Your task to perform on an android device: toggle notifications settings in the gmail app Image 0: 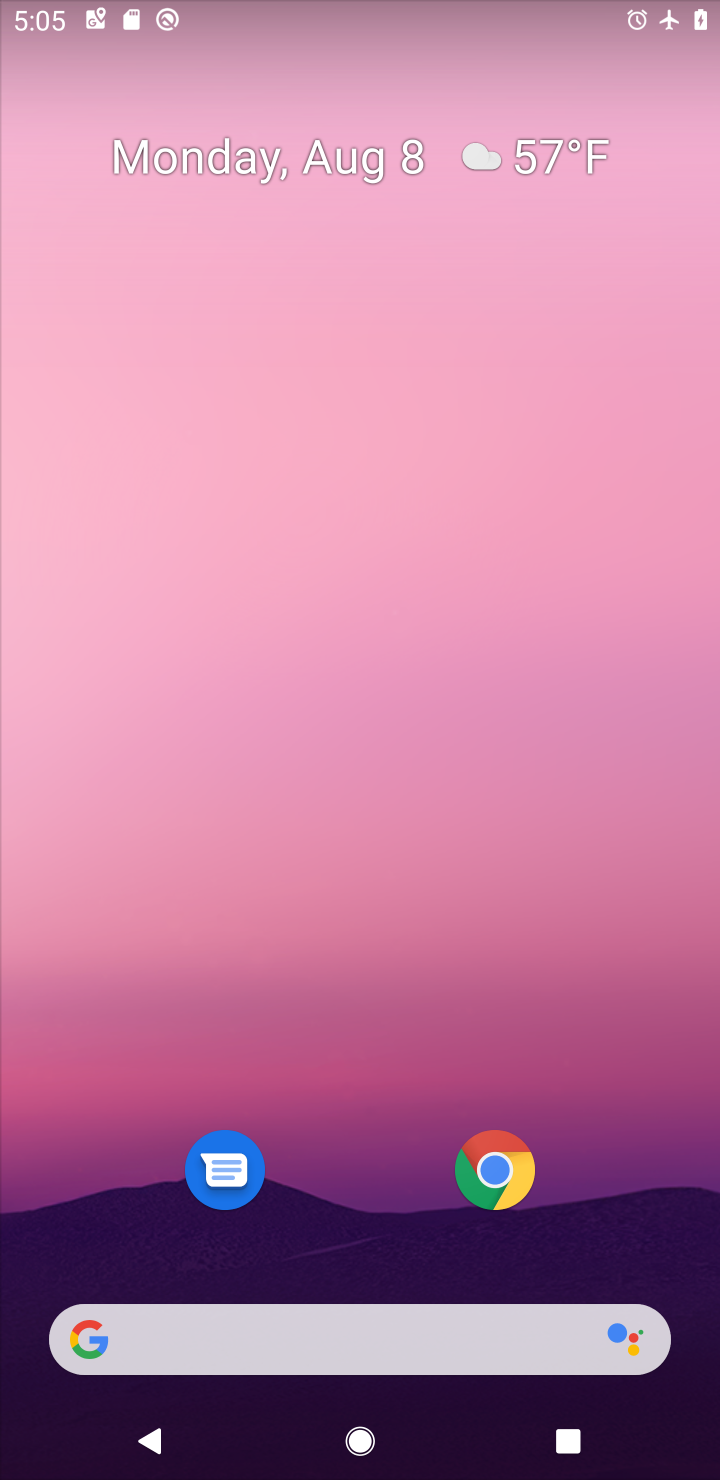
Step 0: drag from (340, 929) to (355, 361)
Your task to perform on an android device: toggle notifications settings in the gmail app Image 1: 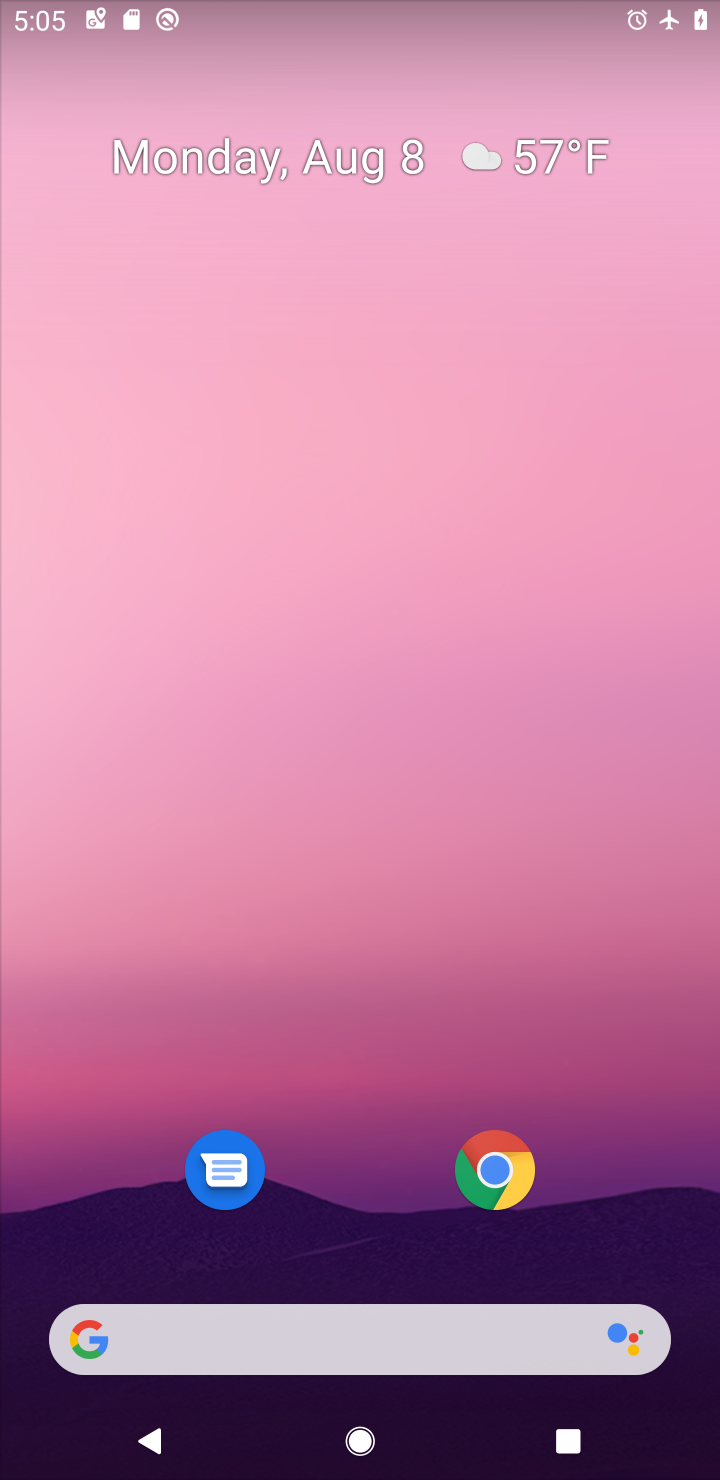
Step 1: drag from (381, 1145) to (394, 309)
Your task to perform on an android device: toggle notifications settings in the gmail app Image 2: 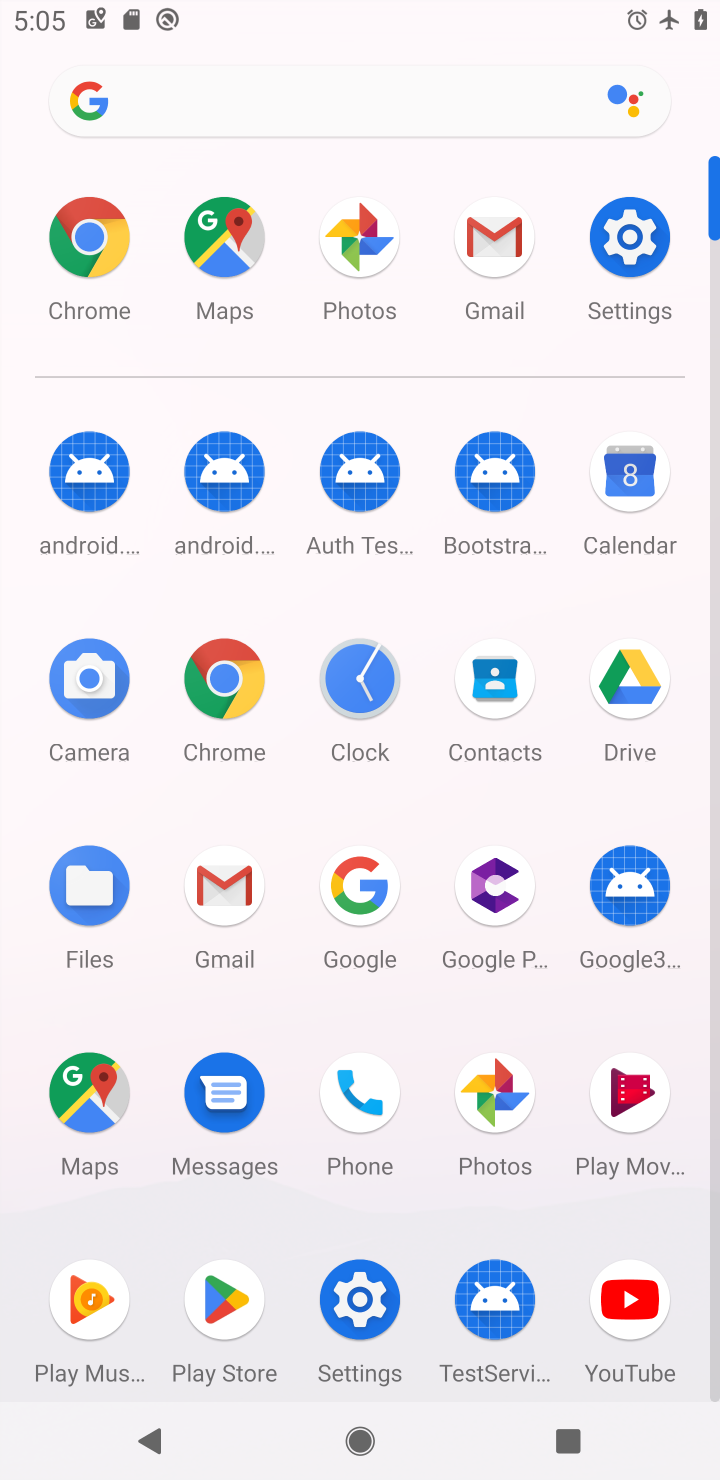
Step 2: click (248, 899)
Your task to perform on an android device: toggle notifications settings in the gmail app Image 3: 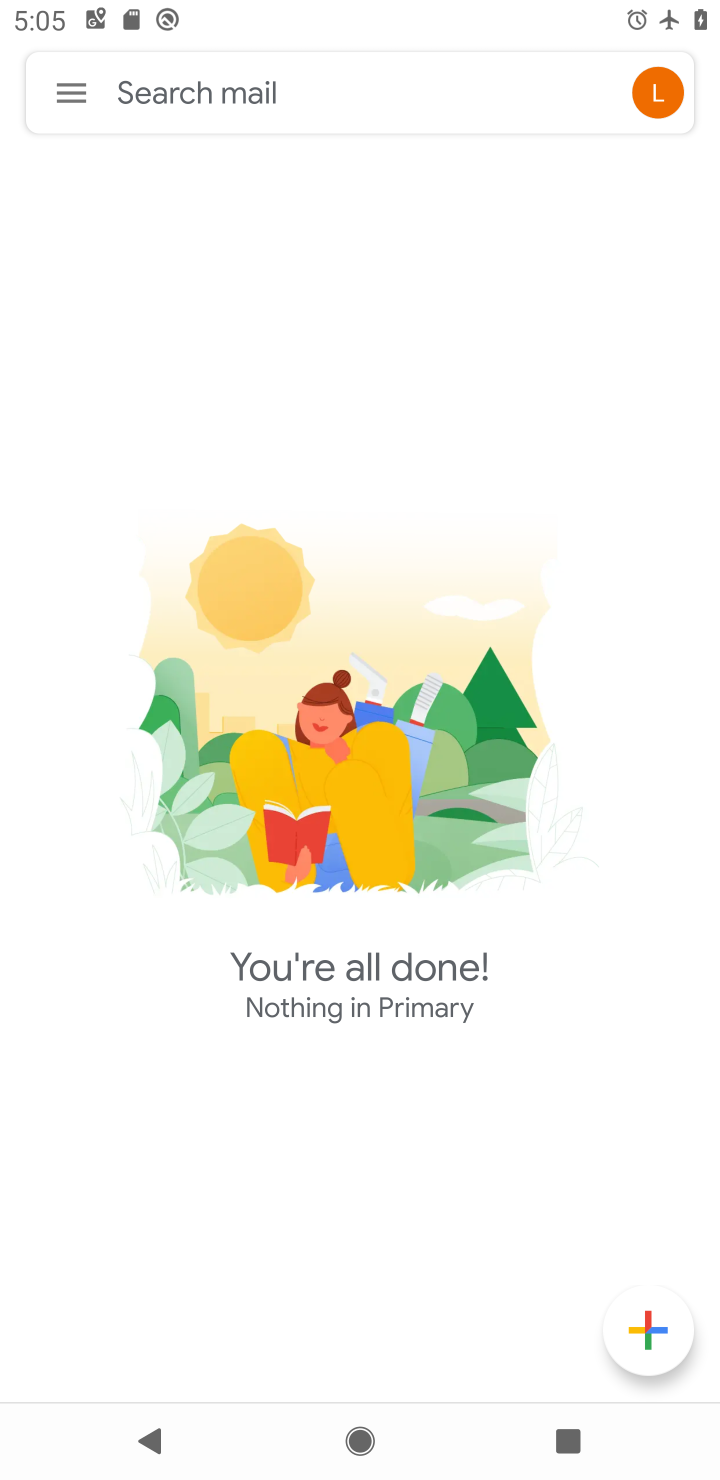
Step 3: click (78, 103)
Your task to perform on an android device: toggle notifications settings in the gmail app Image 4: 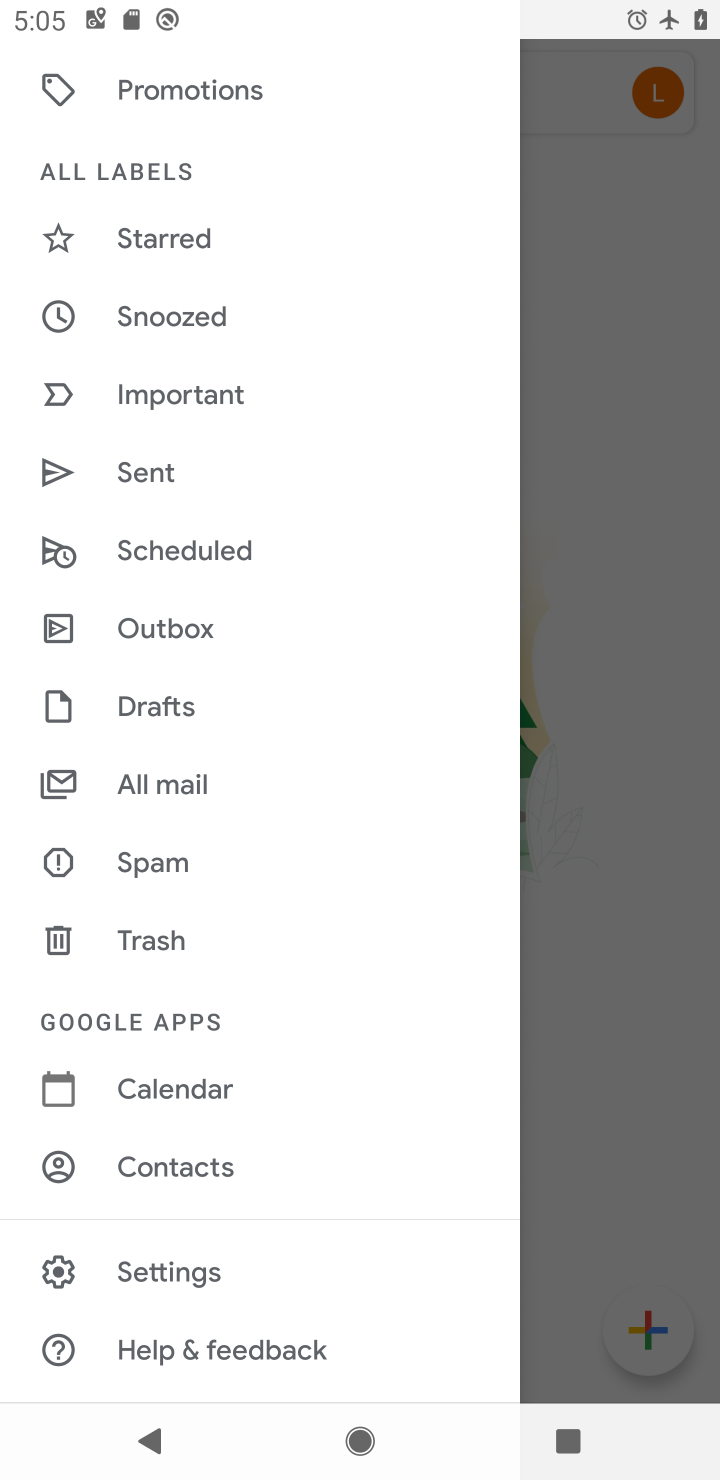
Step 4: click (217, 1281)
Your task to perform on an android device: toggle notifications settings in the gmail app Image 5: 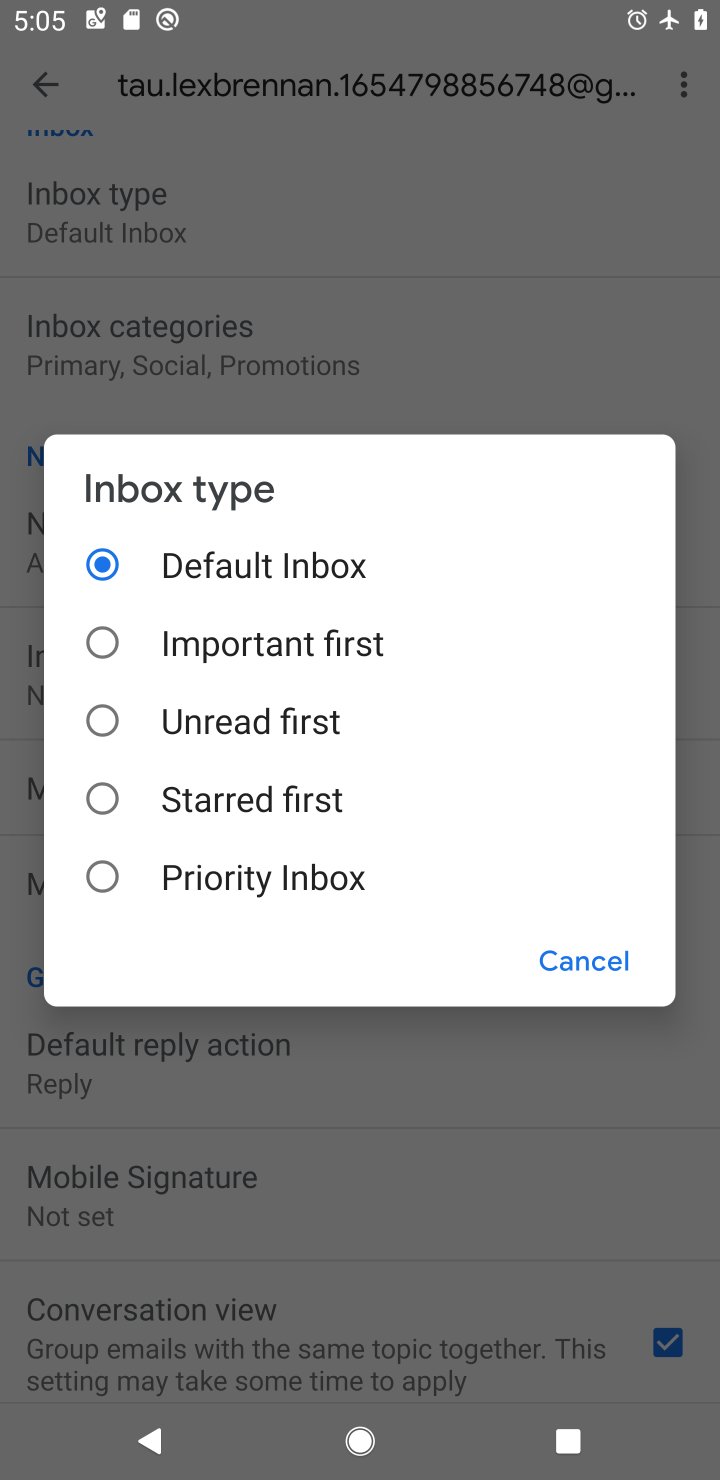
Step 5: click (558, 950)
Your task to perform on an android device: toggle notifications settings in the gmail app Image 6: 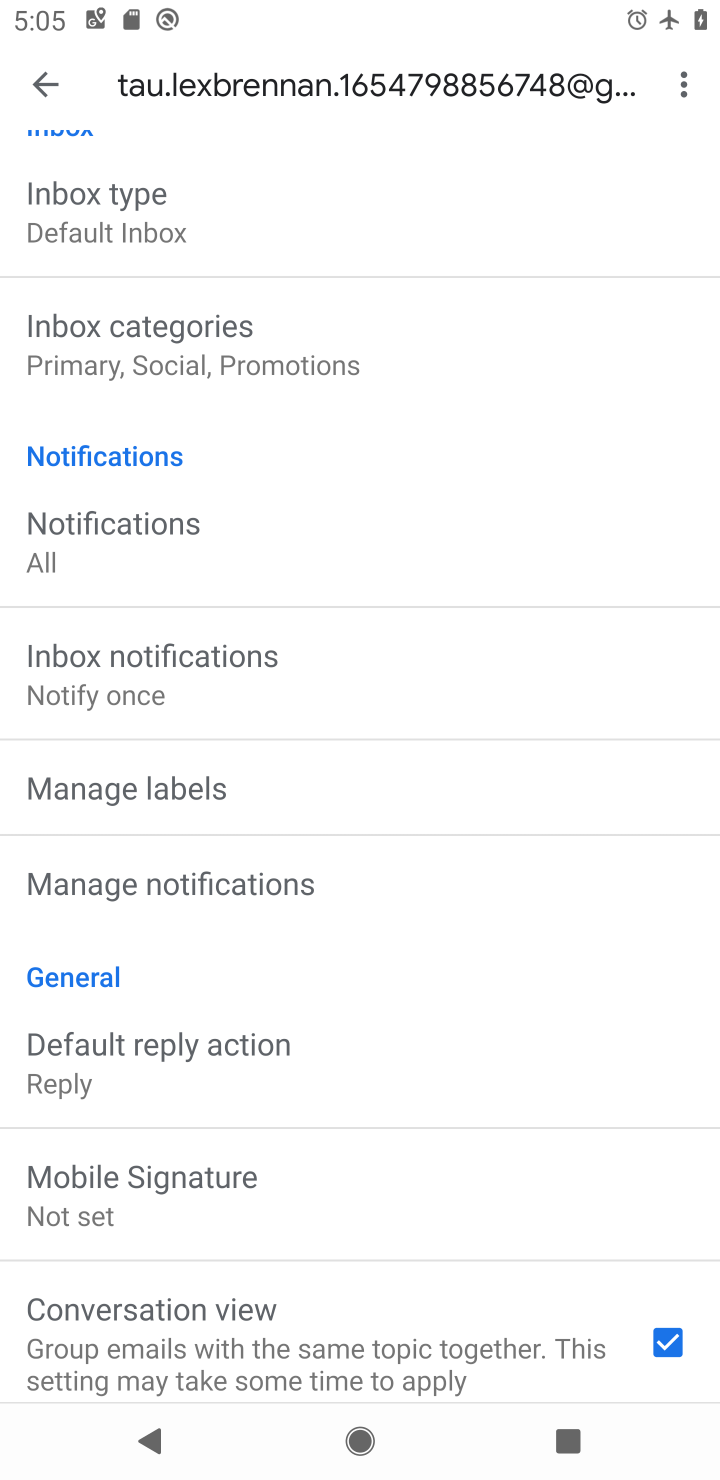
Step 6: click (241, 866)
Your task to perform on an android device: toggle notifications settings in the gmail app Image 7: 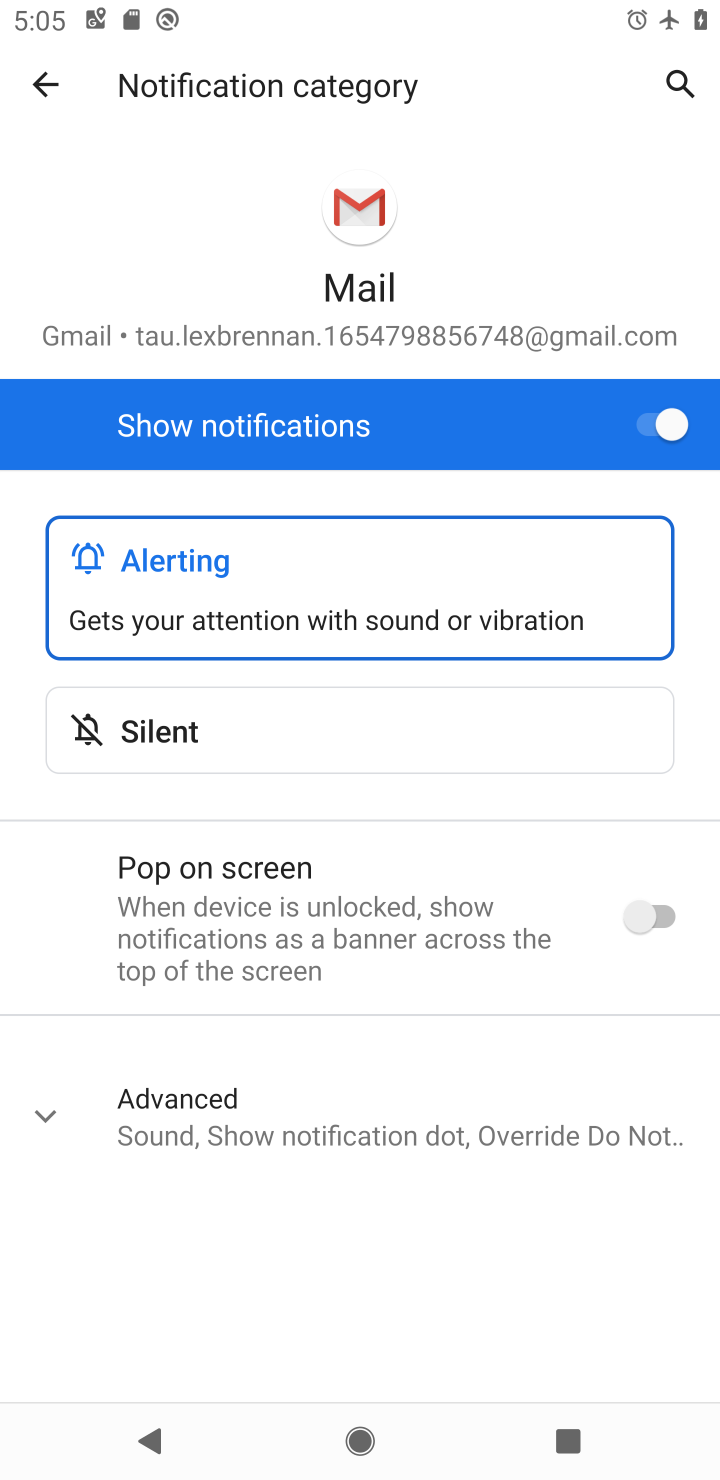
Step 7: click (646, 427)
Your task to perform on an android device: toggle notifications settings in the gmail app Image 8: 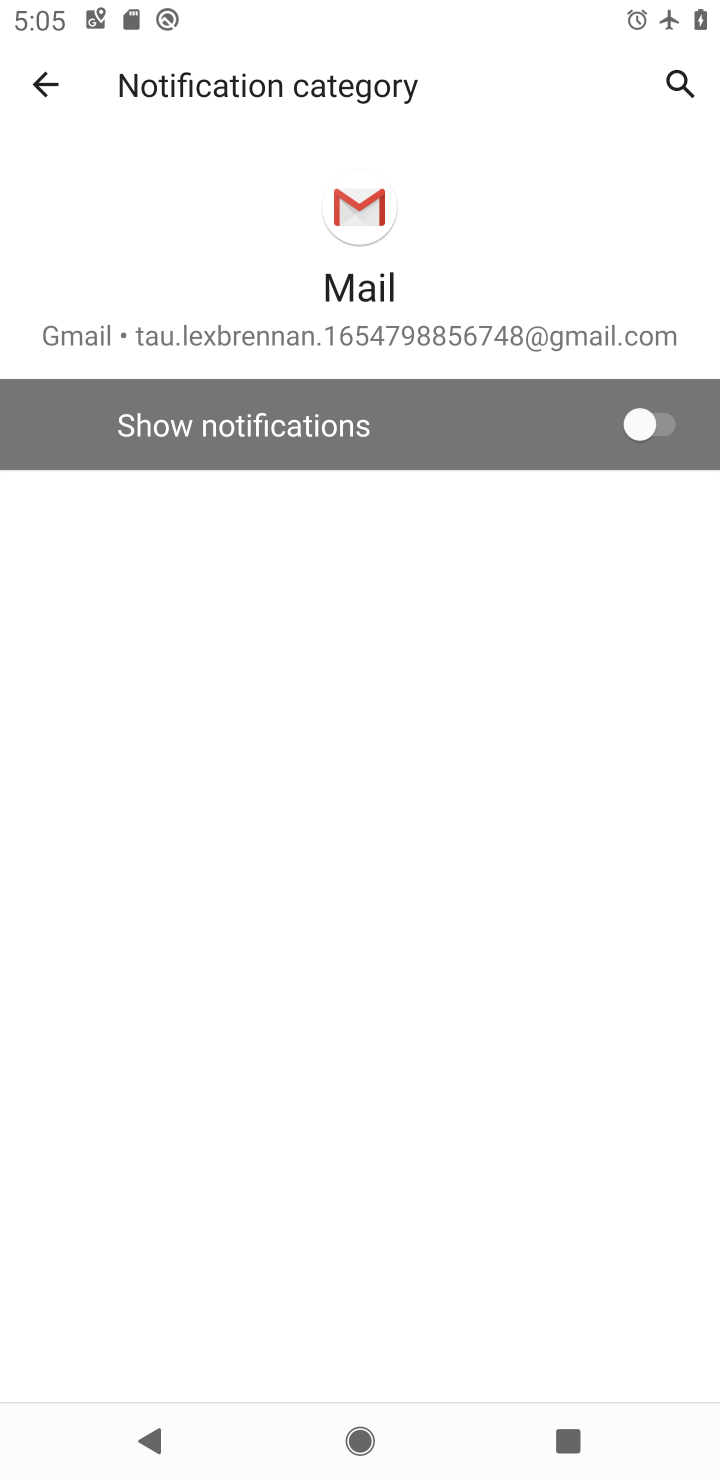
Step 8: task complete